Your task to perform on an android device: Open CNN.com Image 0: 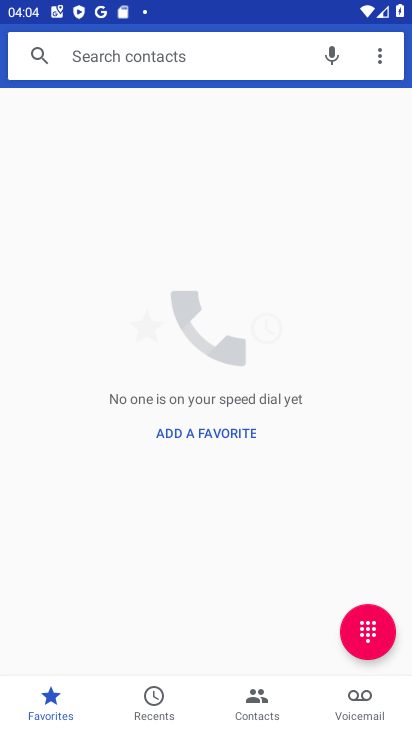
Step 0: press home button
Your task to perform on an android device: Open CNN.com Image 1: 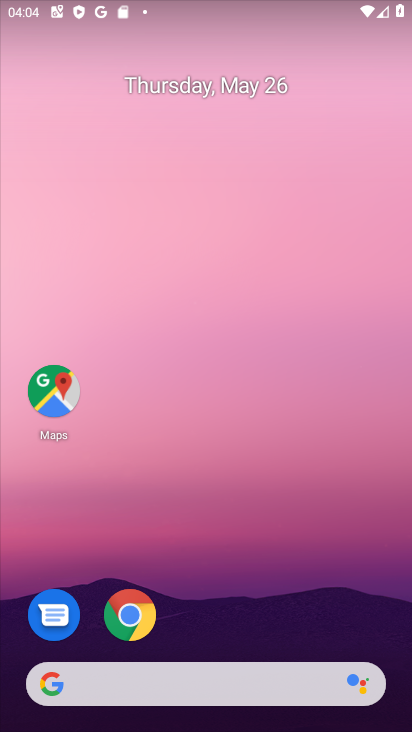
Step 1: click (135, 616)
Your task to perform on an android device: Open CNN.com Image 2: 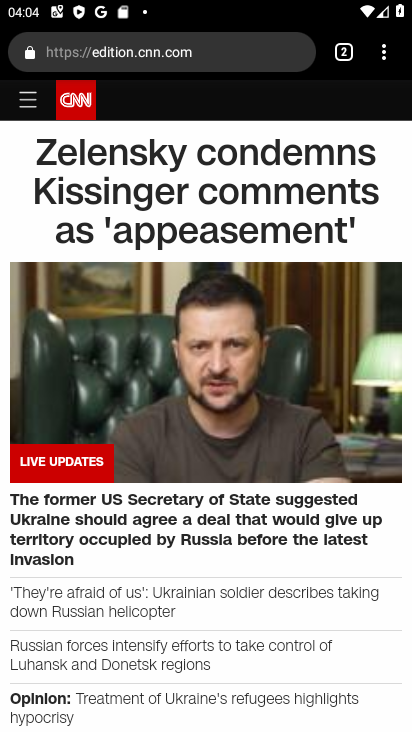
Step 2: task complete